Your task to perform on an android device: Go to settings Image 0: 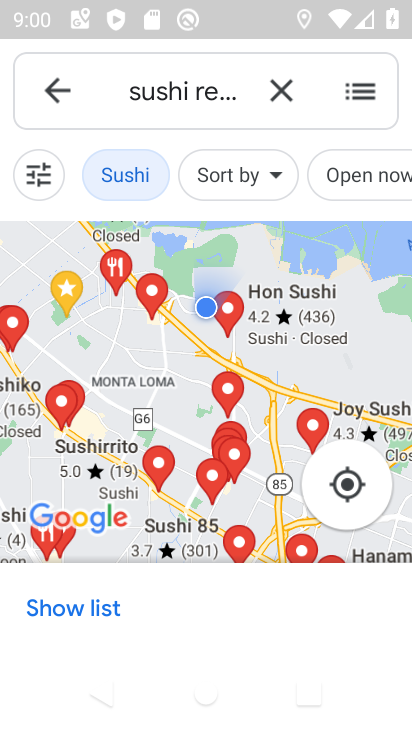
Step 0: press home button
Your task to perform on an android device: Go to settings Image 1: 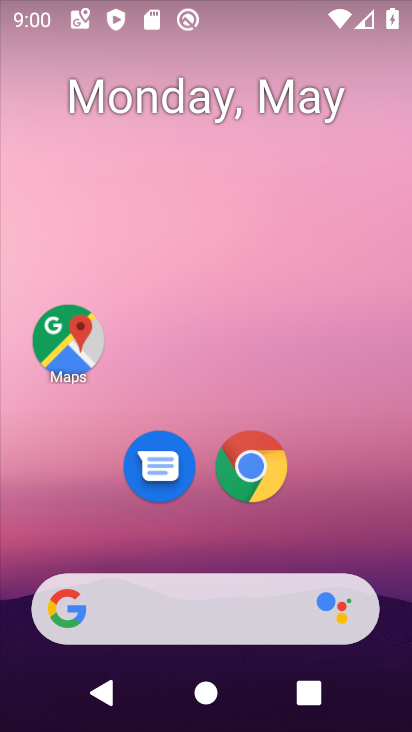
Step 1: drag from (182, 651) to (237, 105)
Your task to perform on an android device: Go to settings Image 2: 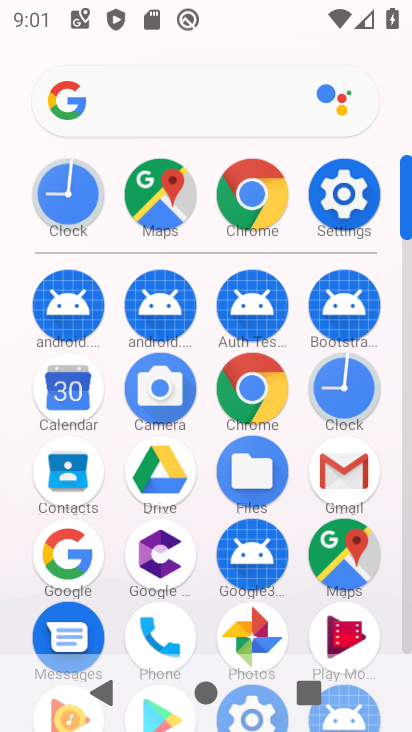
Step 2: click (350, 197)
Your task to perform on an android device: Go to settings Image 3: 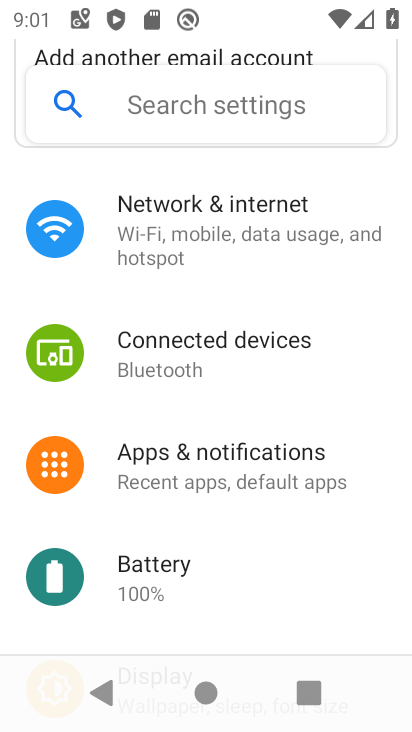
Step 3: task complete